Your task to perform on an android device: open the mobile data screen to see how much data has been used Image 0: 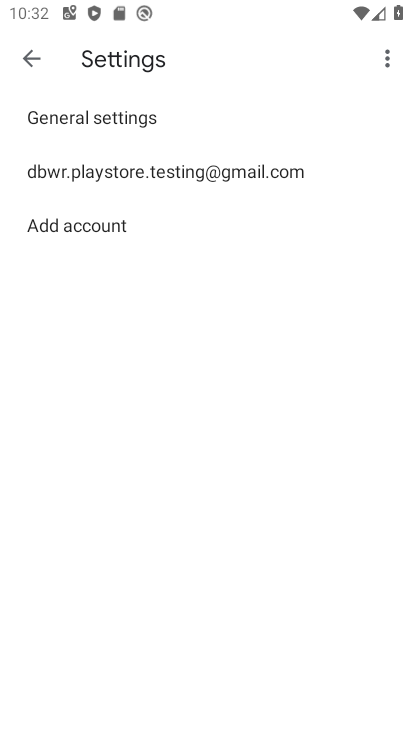
Step 0: press home button
Your task to perform on an android device: open the mobile data screen to see how much data has been used Image 1: 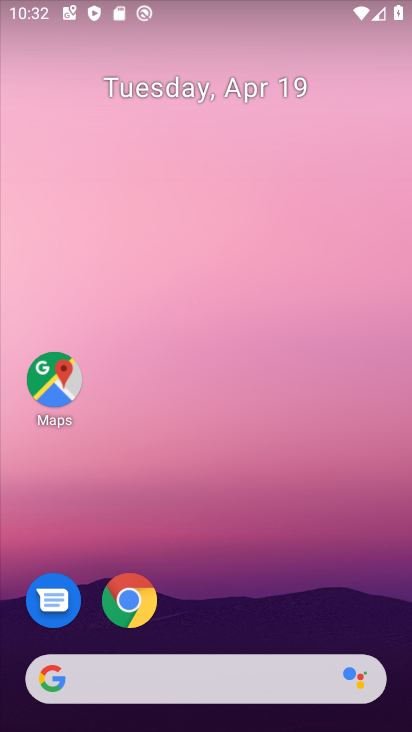
Step 1: drag from (196, 627) to (408, 349)
Your task to perform on an android device: open the mobile data screen to see how much data has been used Image 2: 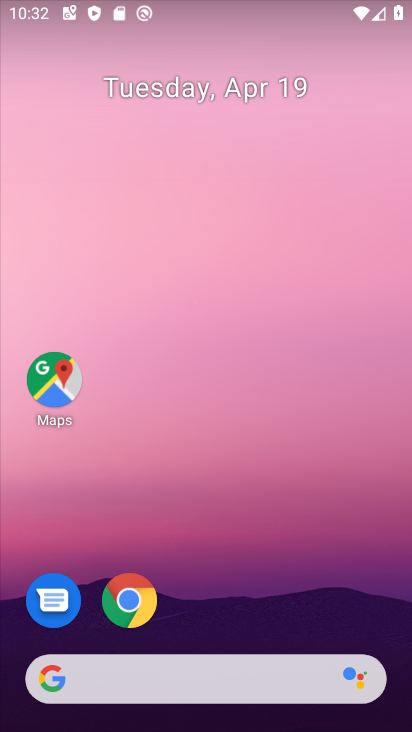
Step 2: drag from (219, 646) to (408, 7)
Your task to perform on an android device: open the mobile data screen to see how much data has been used Image 3: 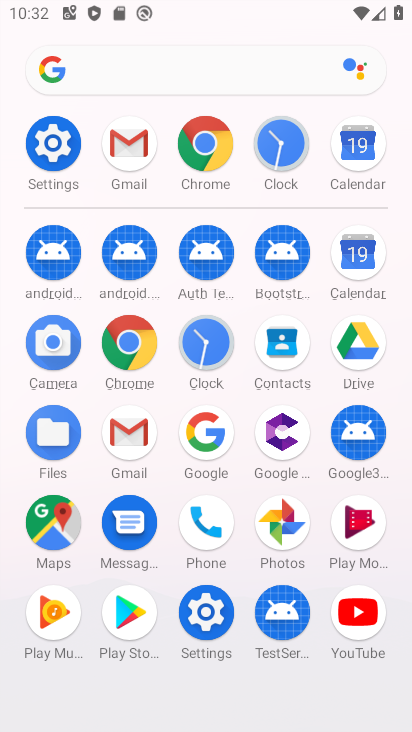
Step 3: click (52, 158)
Your task to perform on an android device: open the mobile data screen to see how much data has been used Image 4: 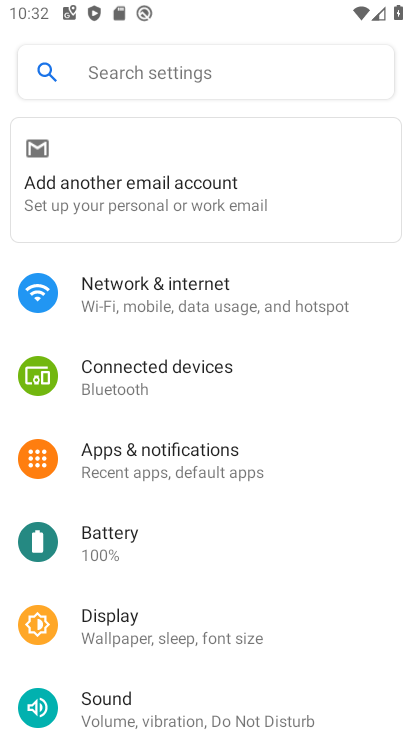
Step 4: click (197, 294)
Your task to perform on an android device: open the mobile data screen to see how much data has been used Image 5: 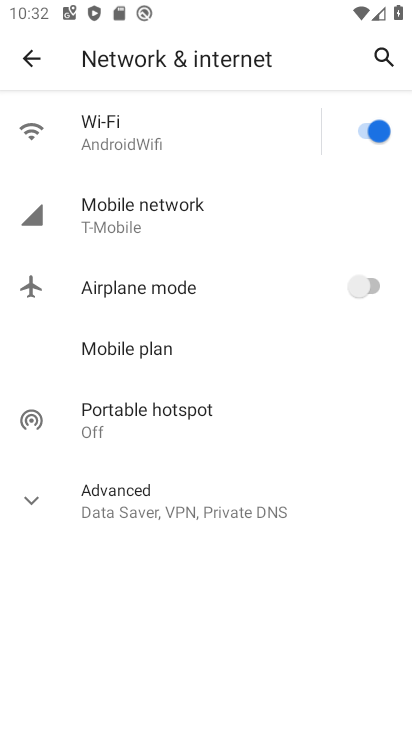
Step 5: click (155, 209)
Your task to perform on an android device: open the mobile data screen to see how much data has been used Image 6: 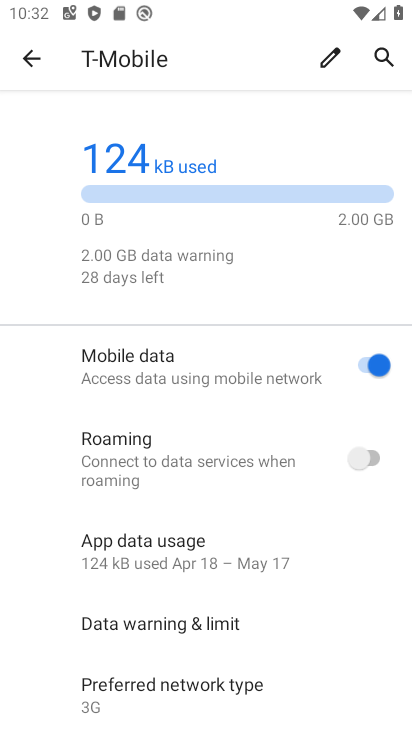
Step 6: click (182, 556)
Your task to perform on an android device: open the mobile data screen to see how much data has been used Image 7: 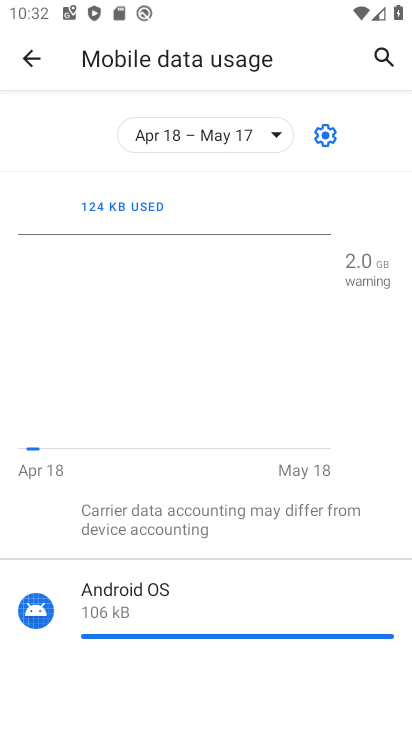
Step 7: task complete